Your task to perform on an android device: What's on my calendar today? Image 0: 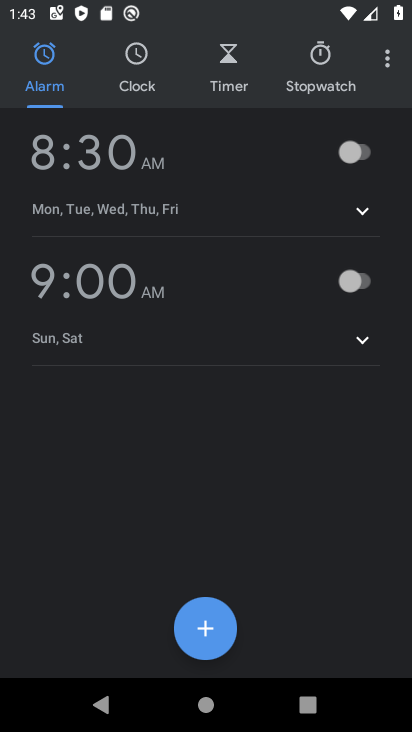
Step 0: press home button
Your task to perform on an android device: What's on my calendar today? Image 1: 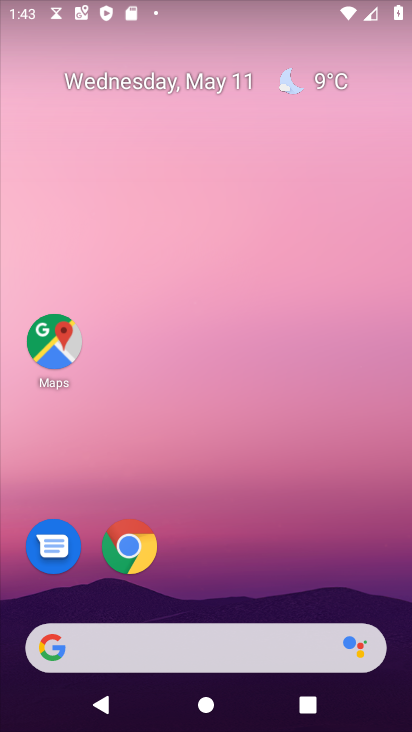
Step 1: drag from (262, 596) to (252, 103)
Your task to perform on an android device: What's on my calendar today? Image 2: 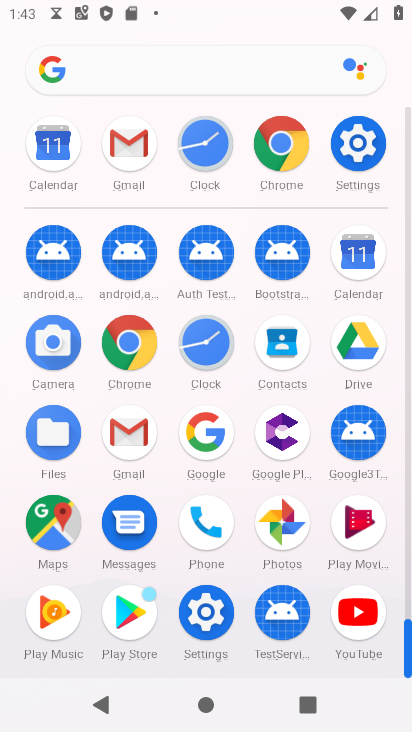
Step 2: click (355, 271)
Your task to perform on an android device: What's on my calendar today? Image 3: 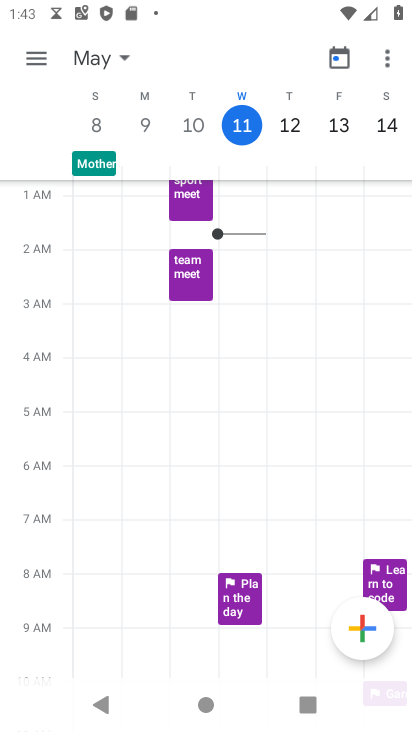
Step 3: click (125, 59)
Your task to perform on an android device: What's on my calendar today? Image 4: 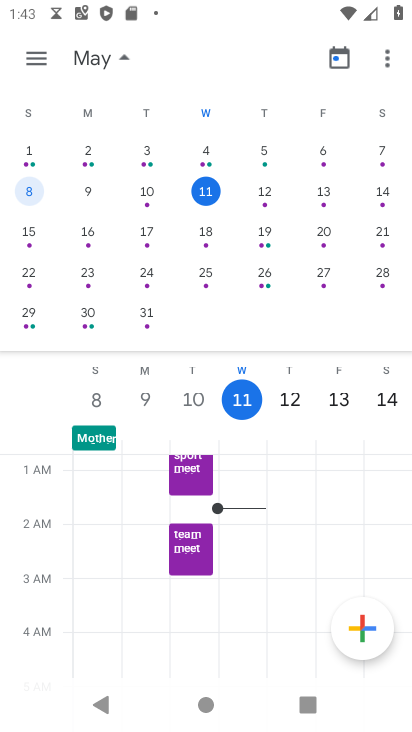
Step 4: task complete